Your task to perform on an android device: Open notification settings Image 0: 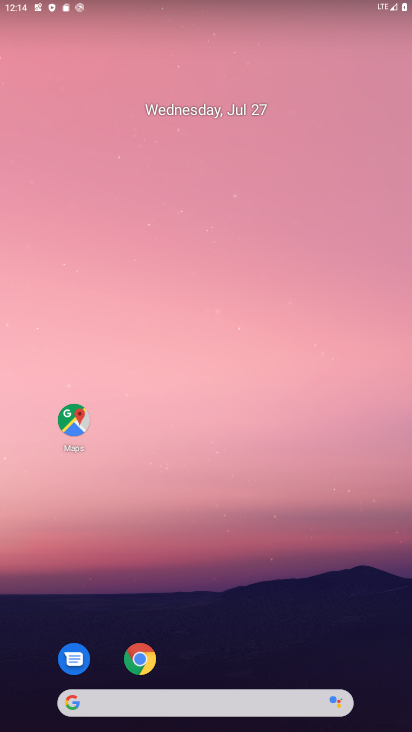
Step 0: drag from (214, 637) to (245, 22)
Your task to perform on an android device: Open notification settings Image 1: 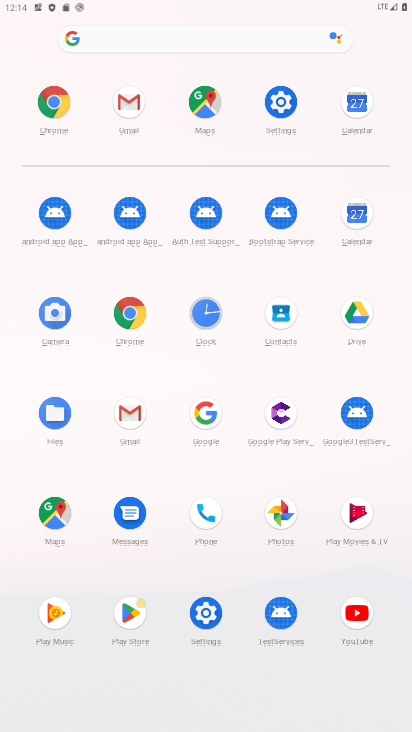
Step 1: click (210, 633)
Your task to perform on an android device: Open notification settings Image 2: 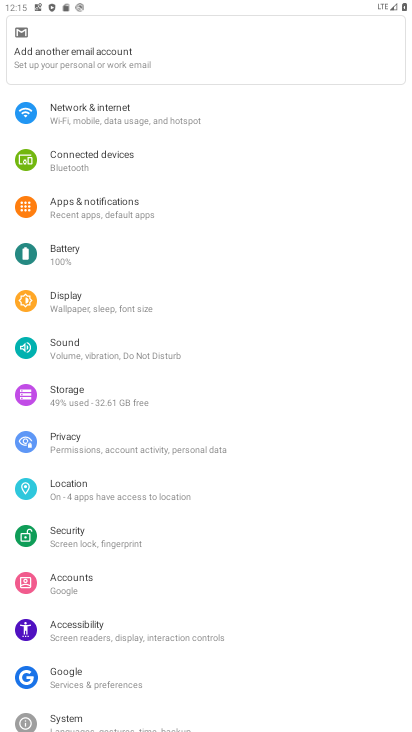
Step 2: click (124, 215)
Your task to perform on an android device: Open notification settings Image 3: 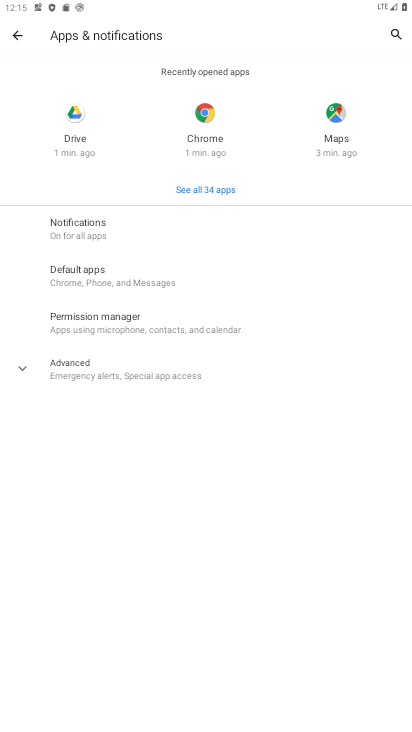
Step 3: click (138, 223)
Your task to perform on an android device: Open notification settings Image 4: 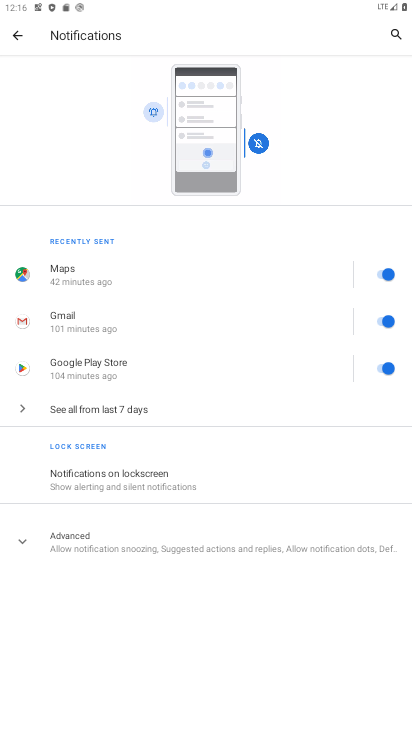
Step 4: task complete